Your task to perform on an android device: turn off picture-in-picture Image 0: 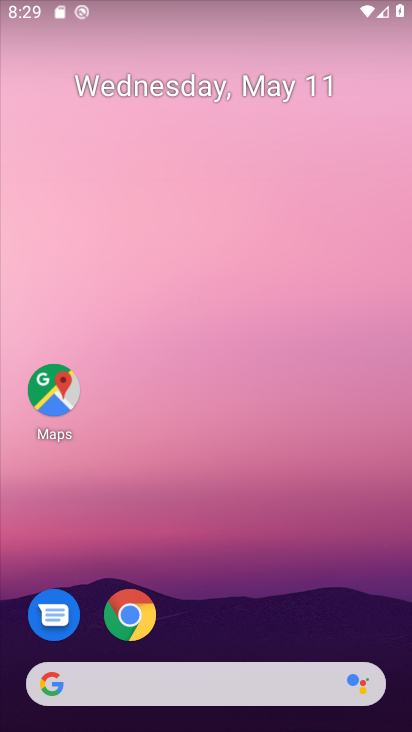
Step 0: drag from (320, 527) to (274, 52)
Your task to perform on an android device: turn off picture-in-picture Image 1: 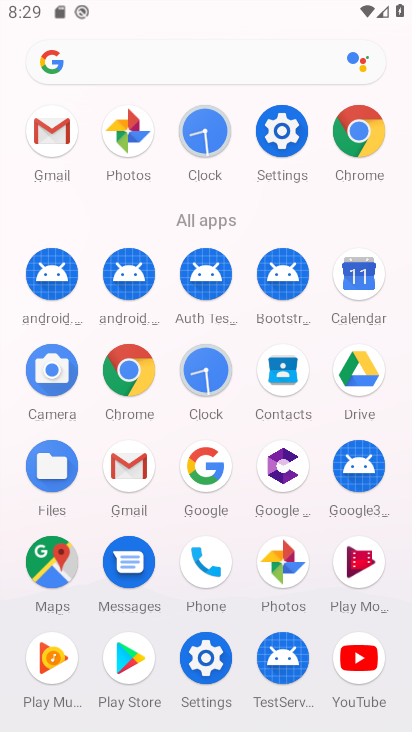
Step 1: click (374, 144)
Your task to perform on an android device: turn off picture-in-picture Image 2: 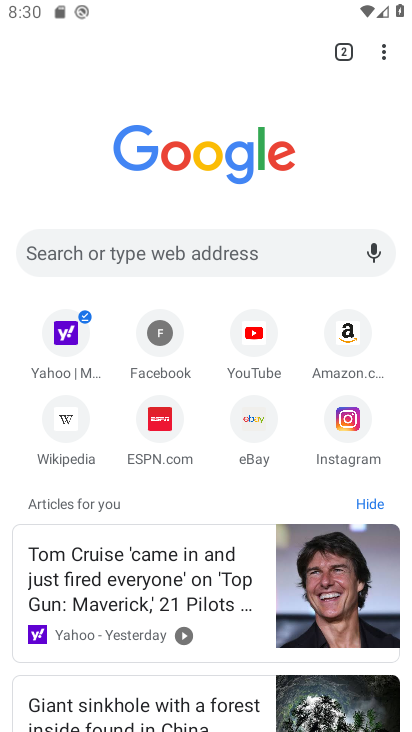
Step 2: press home button
Your task to perform on an android device: turn off picture-in-picture Image 3: 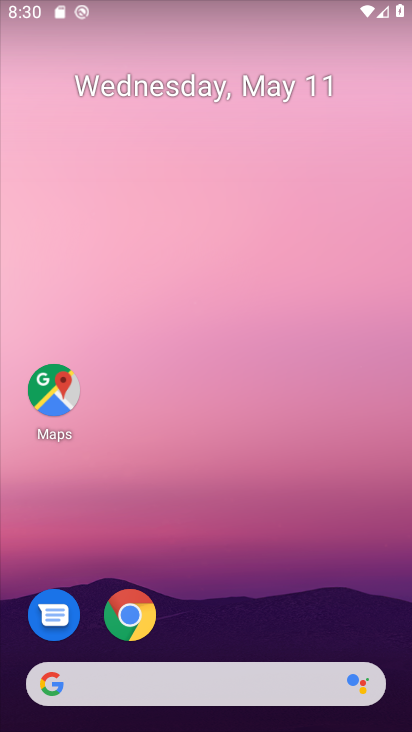
Step 3: click (138, 622)
Your task to perform on an android device: turn off picture-in-picture Image 4: 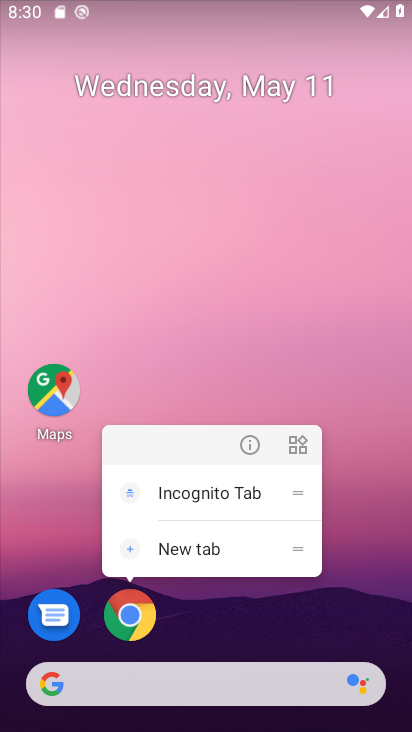
Step 4: click (256, 451)
Your task to perform on an android device: turn off picture-in-picture Image 5: 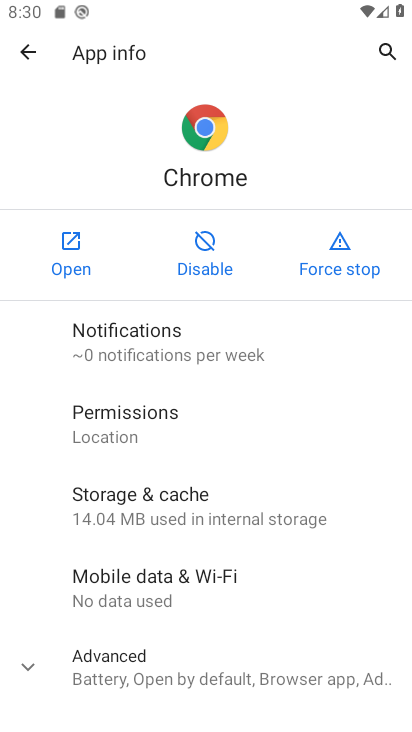
Step 5: drag from (248, 629) to (278, 254)
Your task to perform on an android device: turn off picture-in-picture Image 6: 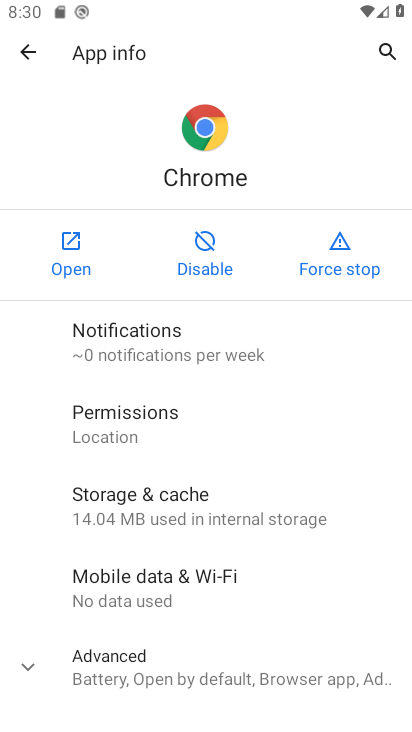
Step 6: click (251, 681)
Your task to perform on an android device: turn off picture-in-picture Image 7: 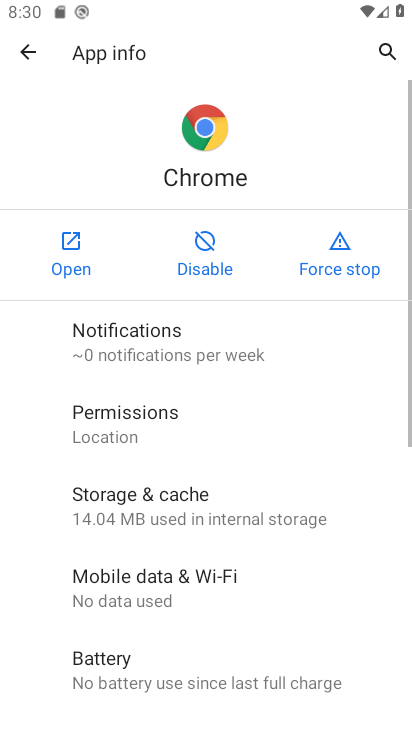
Step 7: drag from (251, 681) to (252, 330)
Your task to perform on an android device: turn off picture-in-picture Image 8: 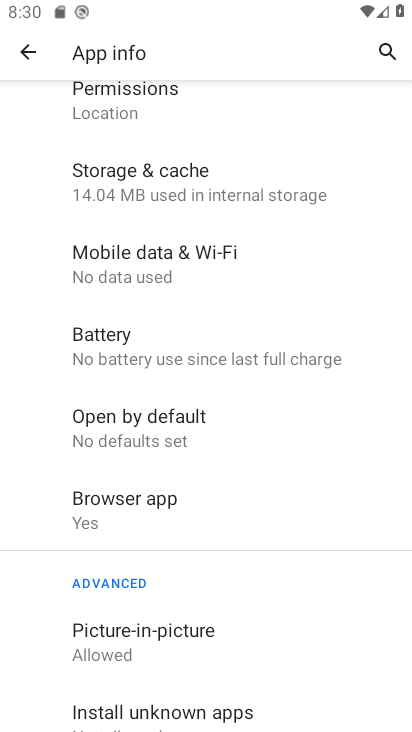
Step 8: click (116, 641)
Your task to perform on an android device: turn off picture-in-picture Image 9: 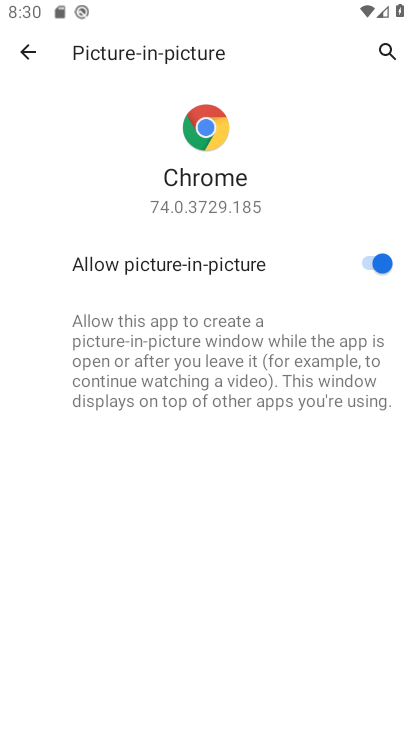
Step 9: click (377, 264)
Your task to perform on an android device: turn off picture-in-picture Image 10: 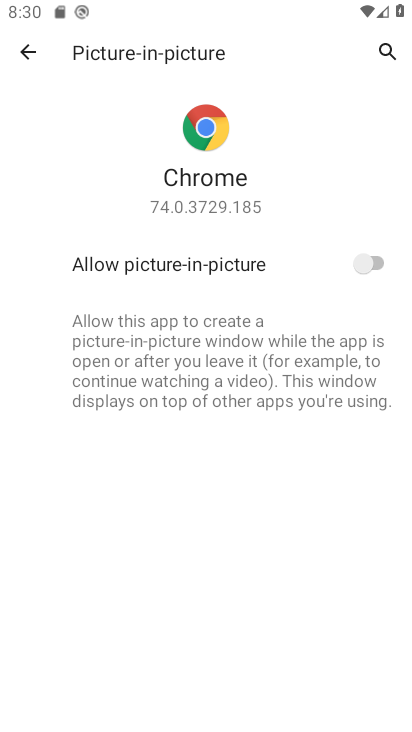
Step 10: task complete